Your task to perform on an android device: Open CNN.com Image 0: 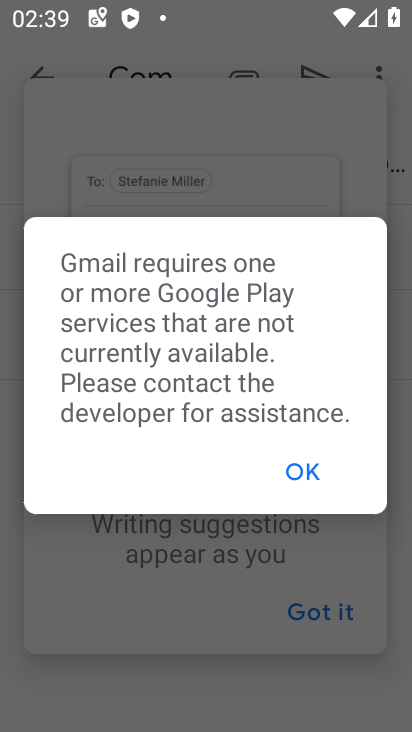
Step 0: press home button
Your task to perform on an android device: Open CNN.com Image 1: 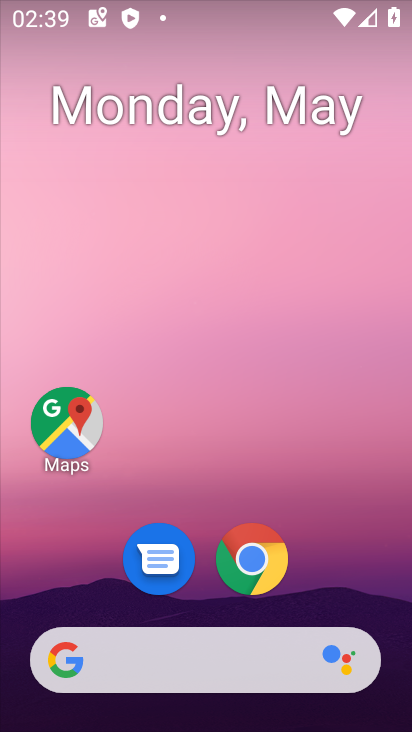
Step 1: click (205, 642)
Your task to perform on an android device: Open CNN.com Image 2: 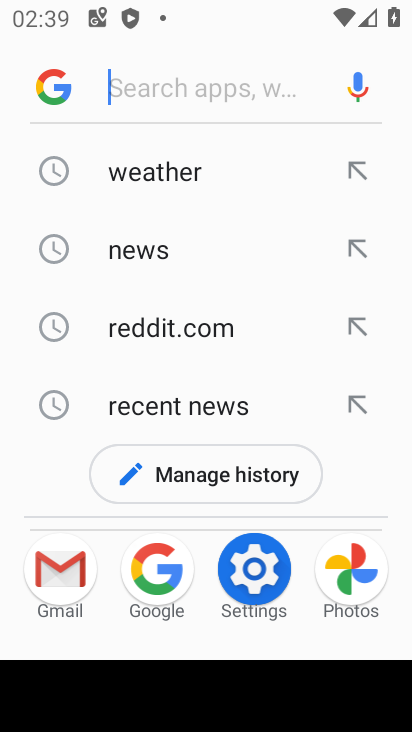
Step 2: type "cnn.com"
Your task to perform on an android device: Open CNN.com Image 3: 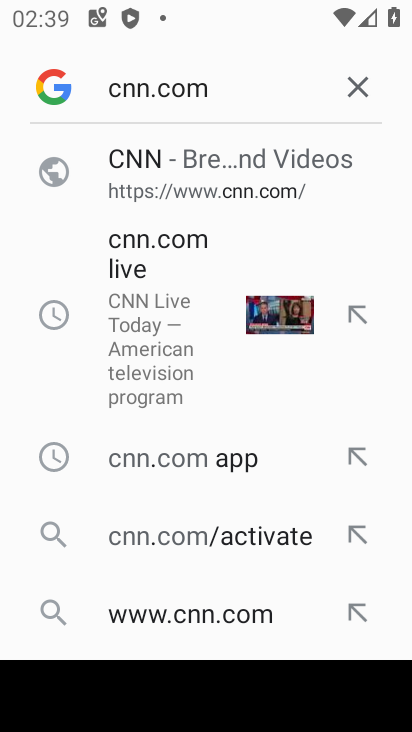
Step 3: click (191, 170)
Your task to perform on an android device: Open CNN.com Image 4: 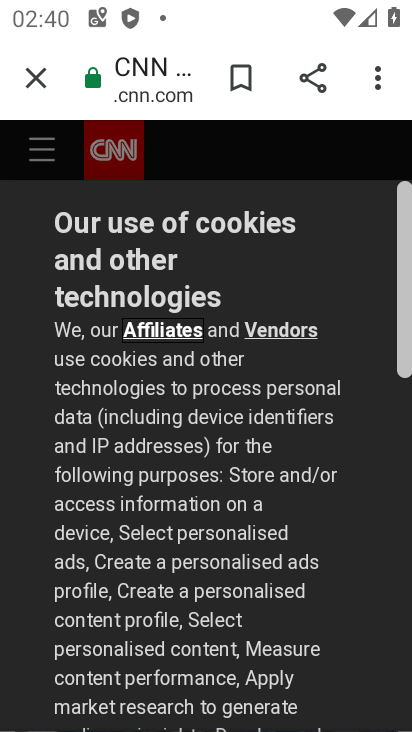
Step 4: task complete